Your task to perform on an android device: Go to internet settings Image 0: 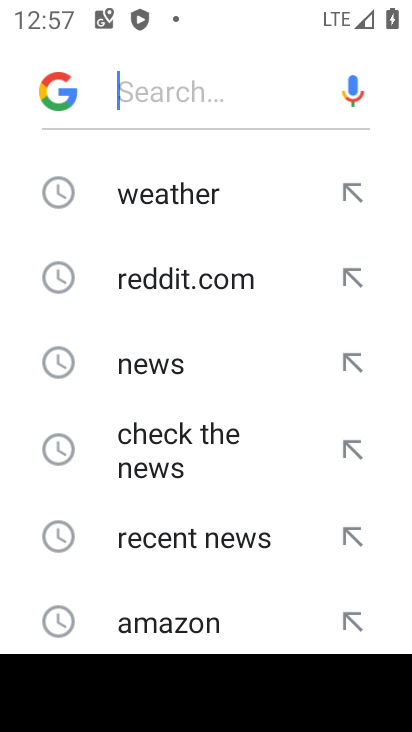
Step 0: press home button
Your task to perform on an android device: Go to internet settings Image 1: 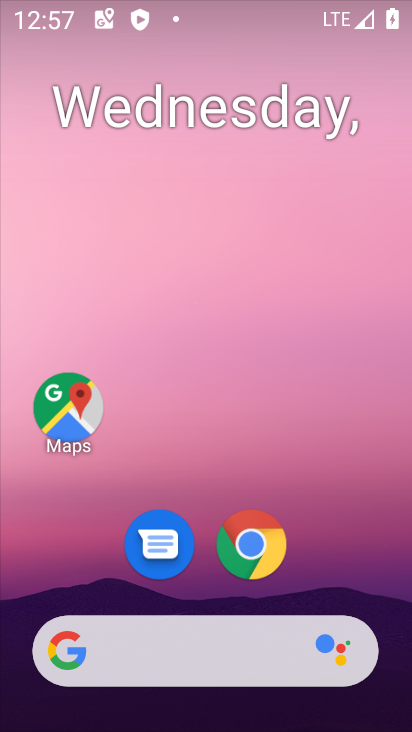
Step 1: drag from (379, 587) to (297, 44)
Your task to perform on an android device: Go to internet settings Image 2: 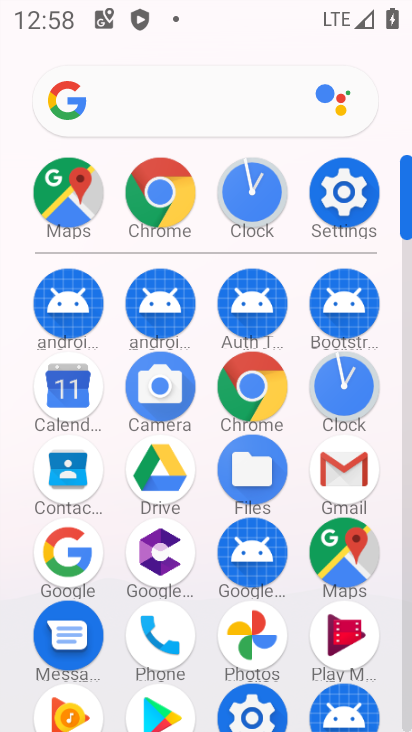
Step 2: click (367, 202)
Your task to perform on an android device: Go to internet settings Image 3: 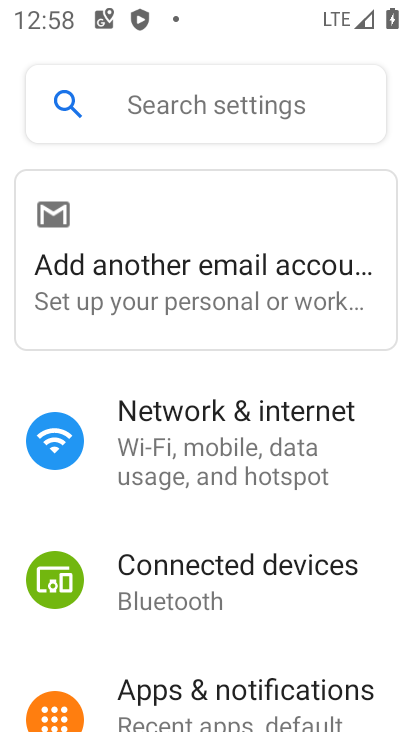
Step 3: click (299, 473)
Your task to perform on an android device: Go to internet settings Image 4: 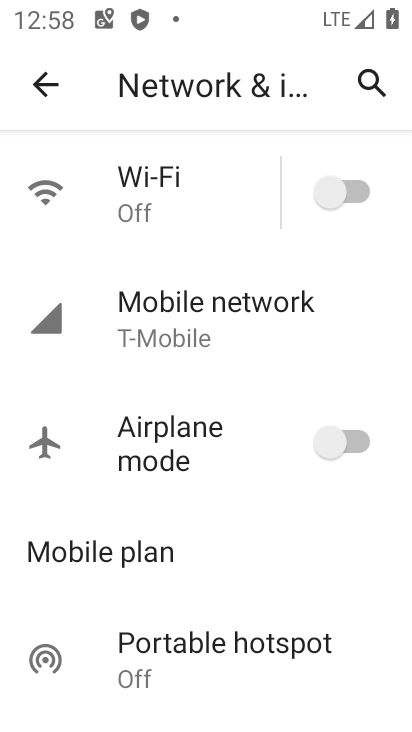
Step 4: task complete